Your task to perform on an android device: Is it going to rain today? Image 0: 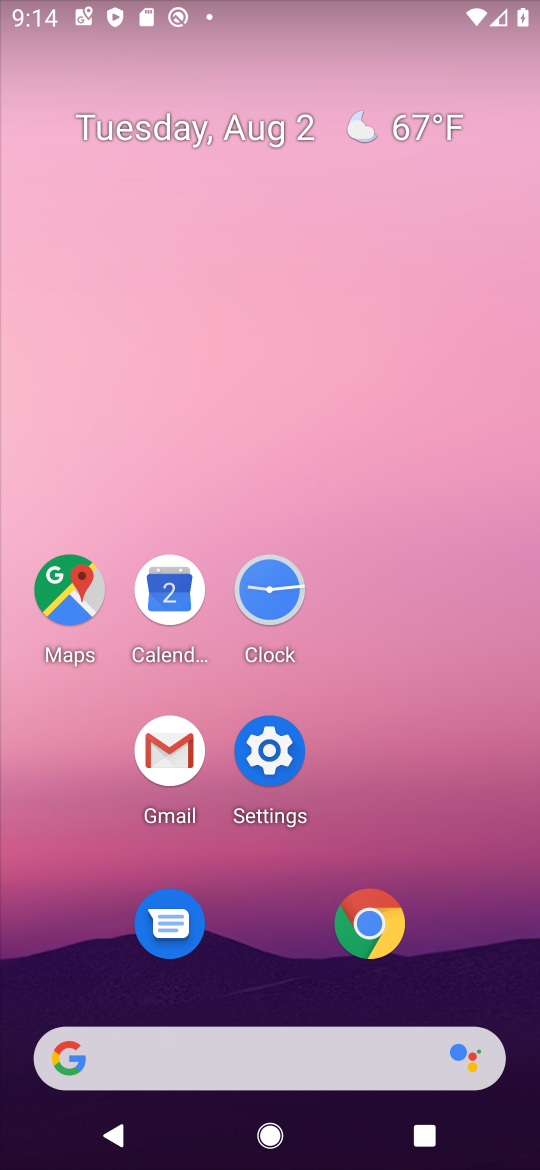
Step 0: drag from (519, 1010) to (481, 28)
Your task to perform on an android device: Is it going to rain today? Image 1: 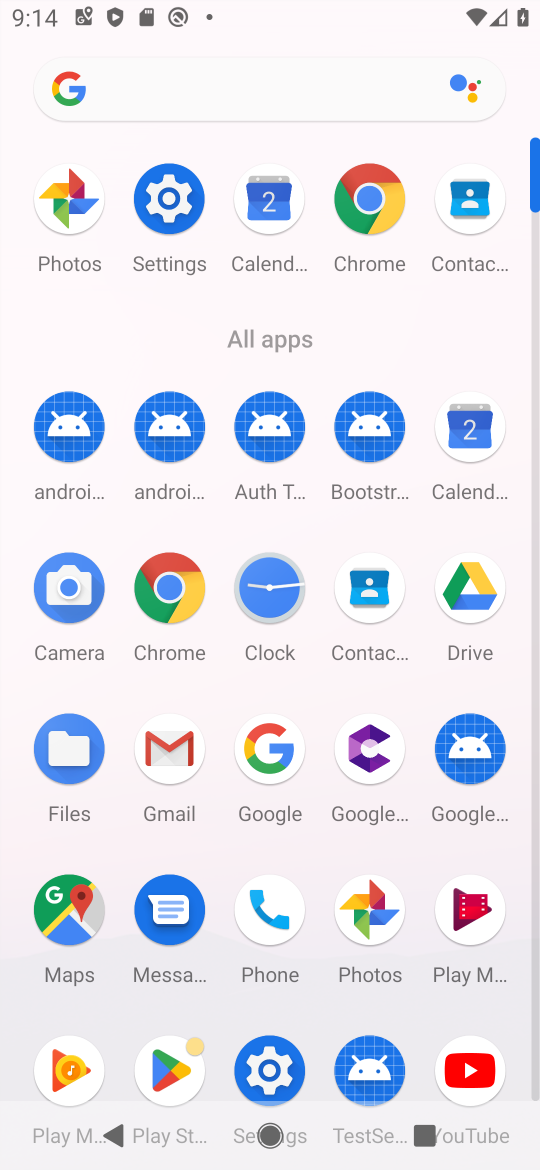
Step 1: click (251, 757)
Your task to perform on an android device: Is it going to rain today? Image 2: 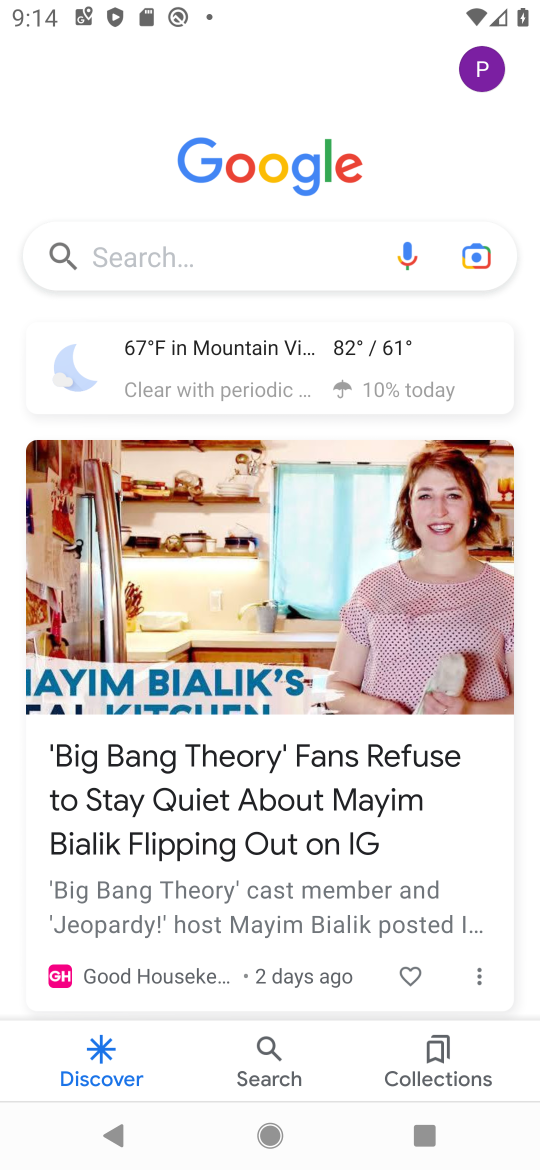
Step 2: click (363, 354)
Your task to perform on an android device: Is it going to rain today? Image 3: 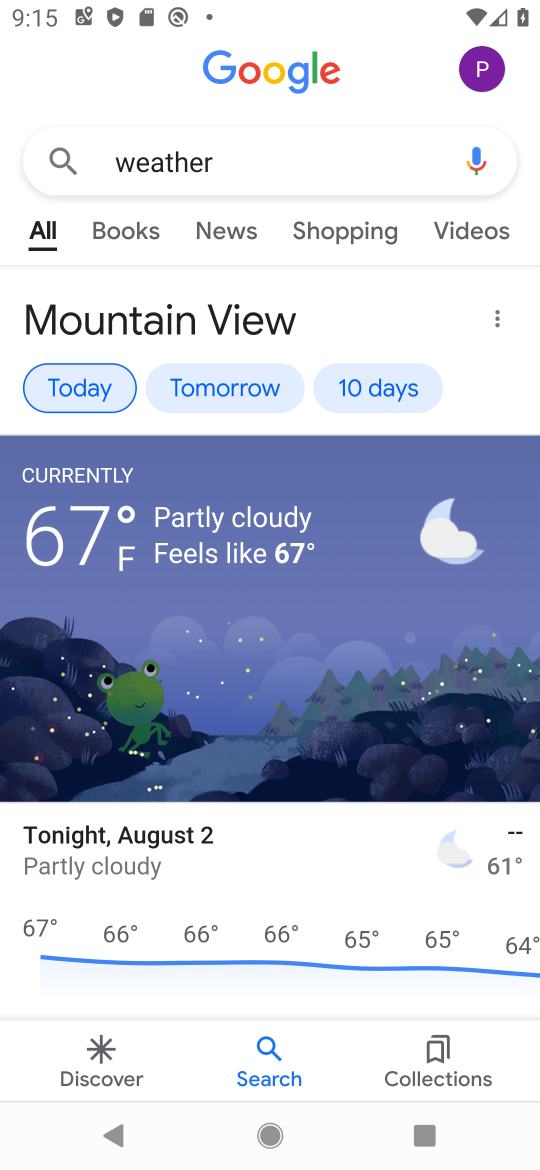
Step 3: click (105, 385)
Your task to perform on an android device: Is it going to rain today? Image 4: 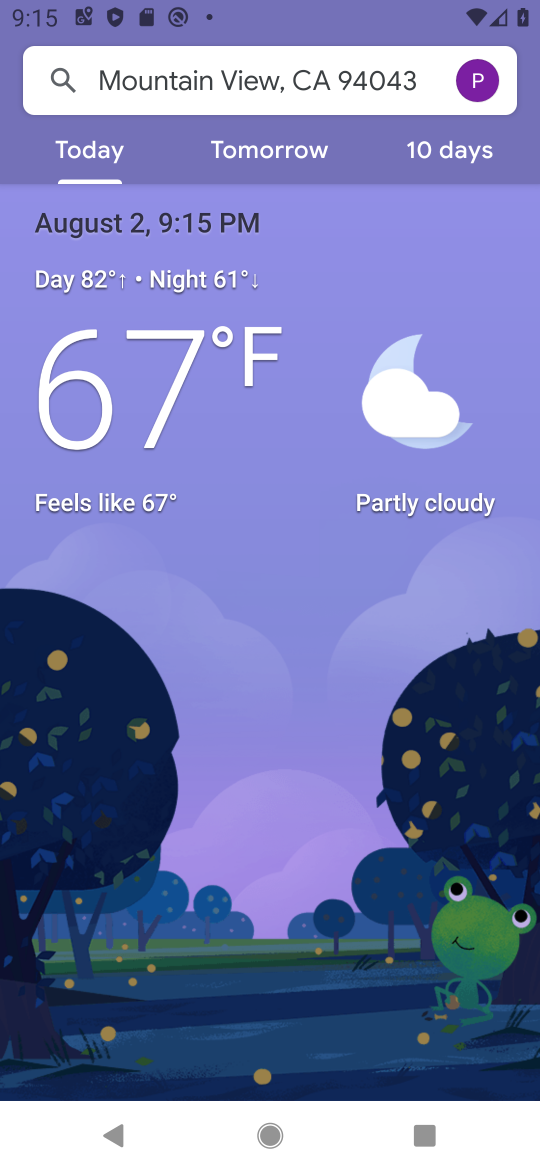
Step 4: task complete